Your task to perform on an android device: Open maps Image 0: 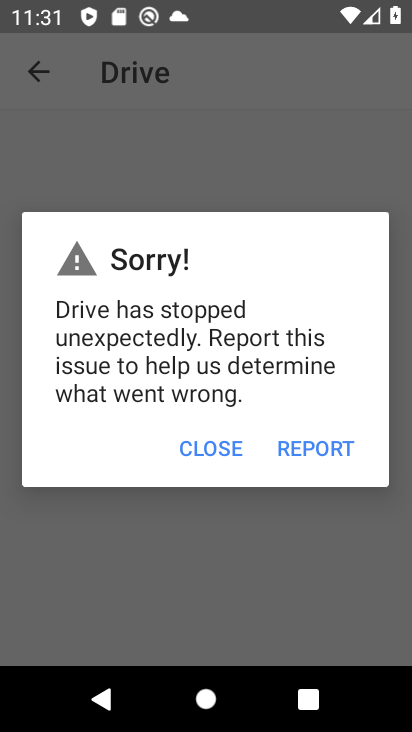
Step 0: press home button
Your task to perform on an android device: Open maps Image 1: 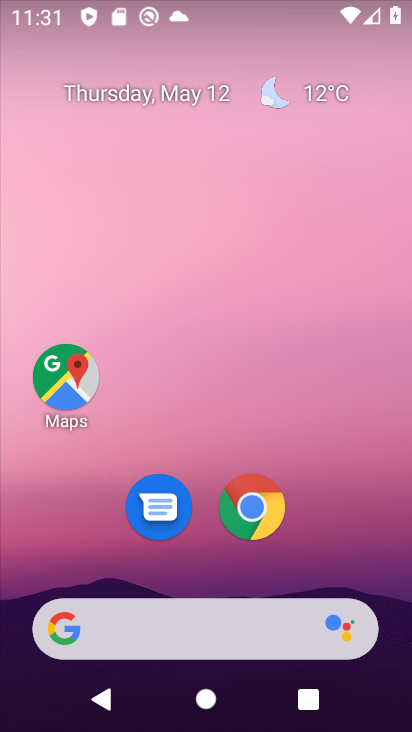
Step 1: drag from (212, 581) to (238, 53)
Your task to perform on an android device: Open maps Image 2: 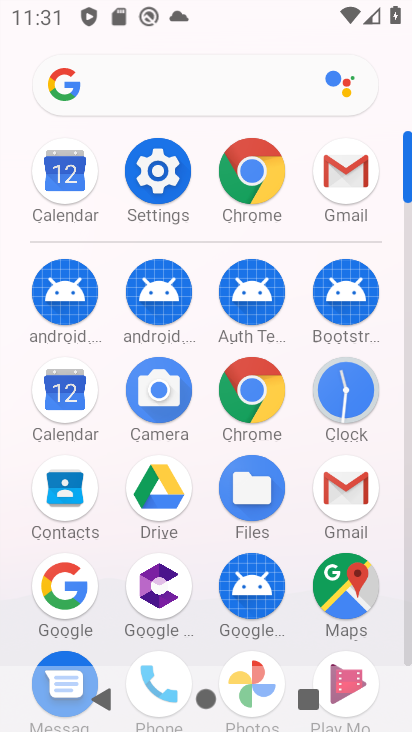
Step 2: click (334, 581)
Your task to perform on an android device: Open maps Image 3: 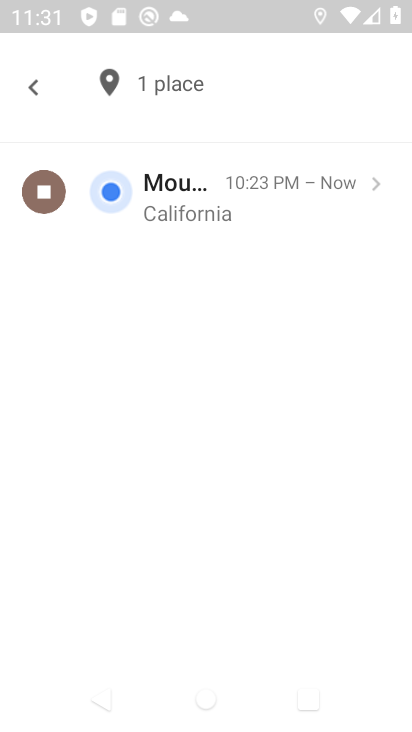
Step 3: click (46, 101)
Your task to perform on an android device: Open maps Image 4: 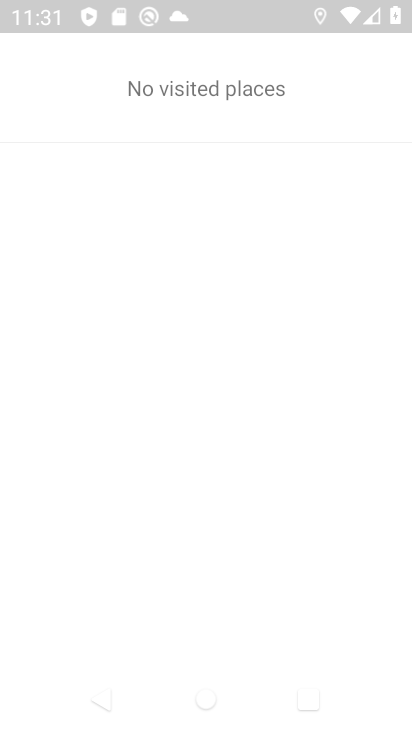
Step 4: task complete